Your task to perform on an android device: What's the weather going to be tomorrow? Image 0: 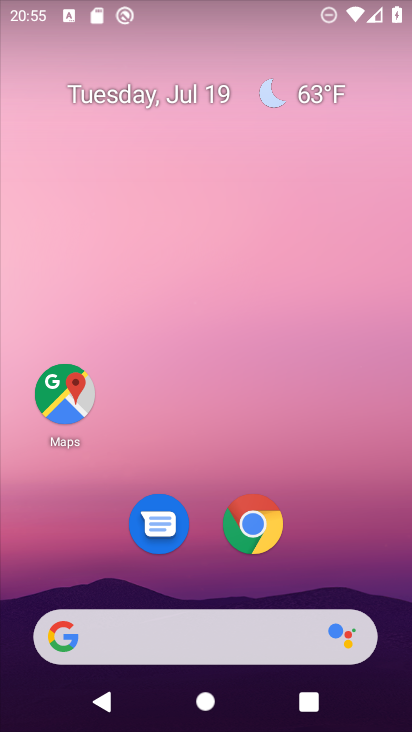
Step 0: click (313, 92)
Your task to perform on an android device: What's the weather going to be tomorrow? Image 1: 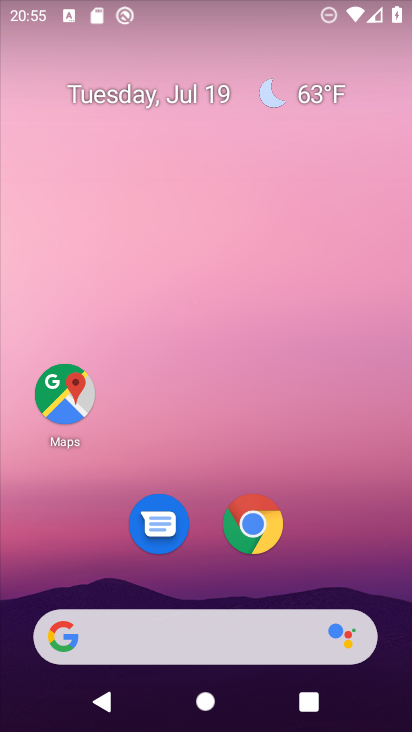
Step 1: click (244, 640)
Your task to perform on an android device: What's the weather going to be tomorrow? Image 2: 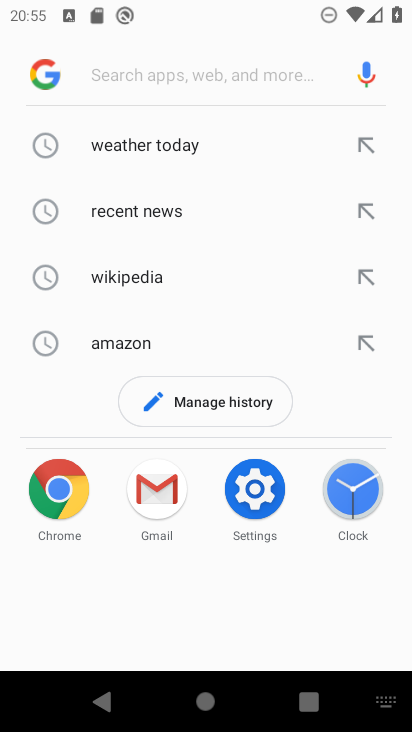
Step 2: click (141, 145)
Your task to perform on an android device: What's the weather going to be tomorrow? Image 3: 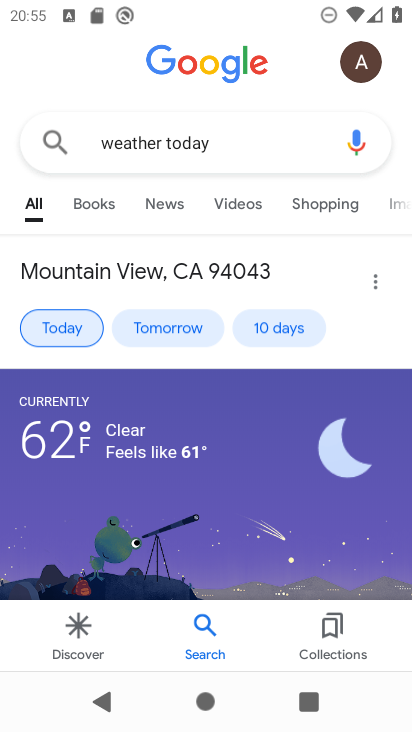
Step 3: click (164, 326)
Your task to perform on an android device: What's the weather going to be tomorrow? Image 4: 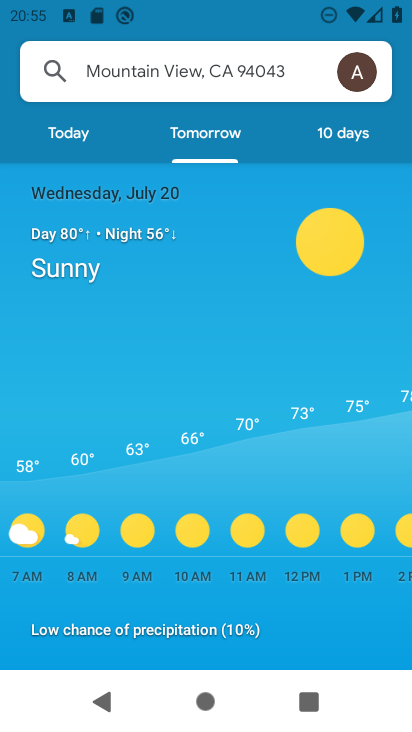
Step 4: task complete